Your task to perform on an android device: Open privacy settings Image 0: 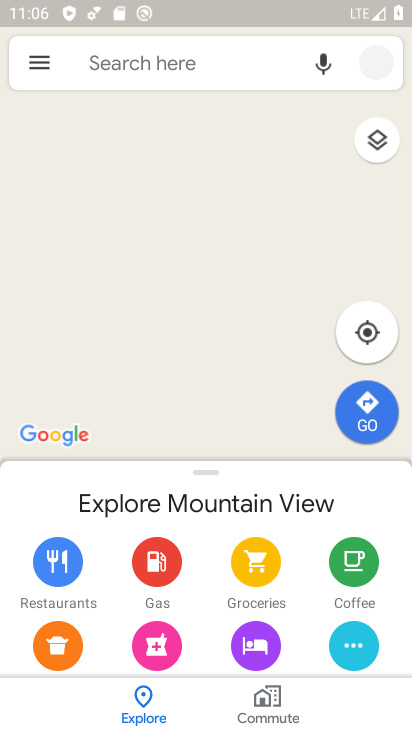
Step 0: click (165, 15)
Your task to perform on an android device: Open privacy settings Image 1: 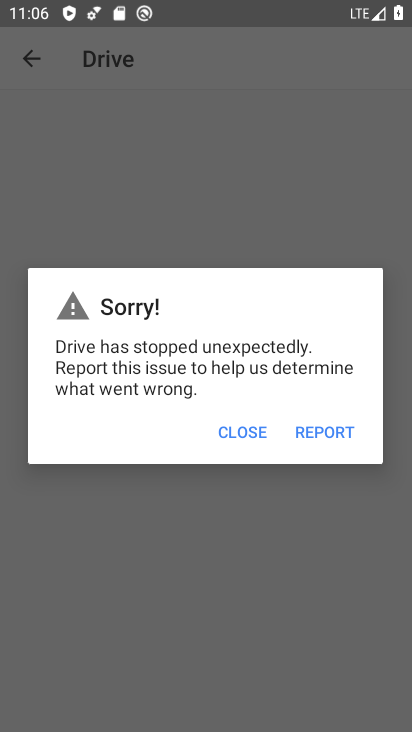
Step 1: press home button
Your task to perform on an android device: Open privacy settings Image 2: 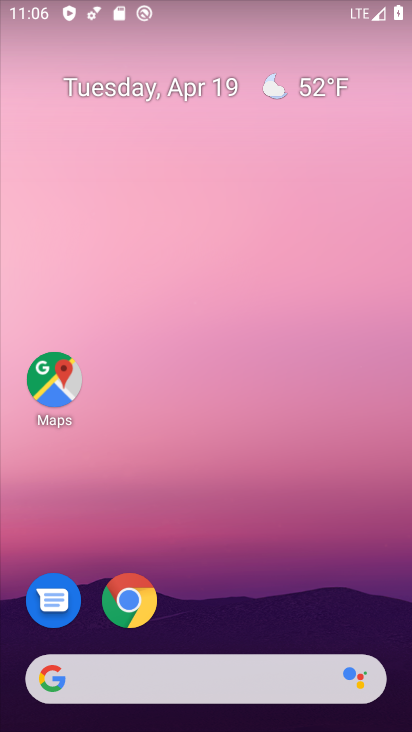
Step 2: drag from (222, 661) to (205, 9)
Your task to perform on an android device: Open privacy settings Image 3: 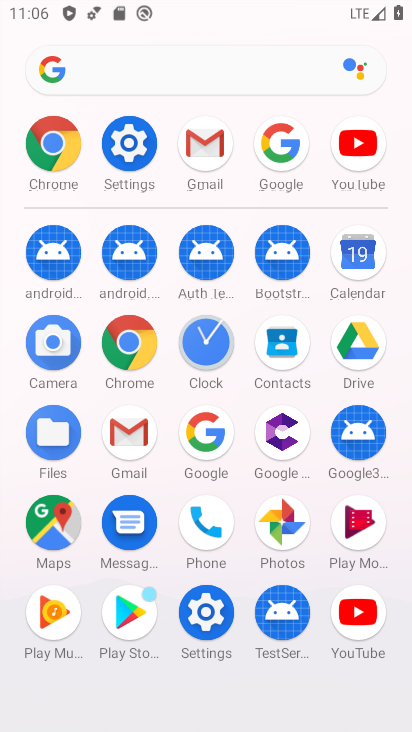
Step 3: click (214, 592)
Your task to perform on an android device: Open privacy settings Image 4: 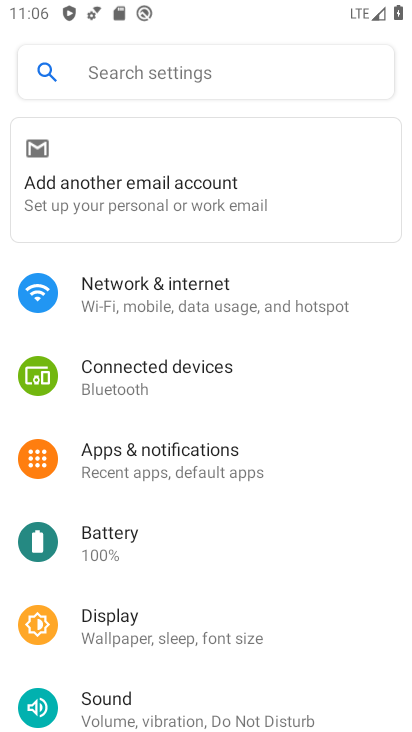
Step 4: drag from (243, 623) to (217, 287)
Your task to perform on an android device: Open privacy settings Image 5: 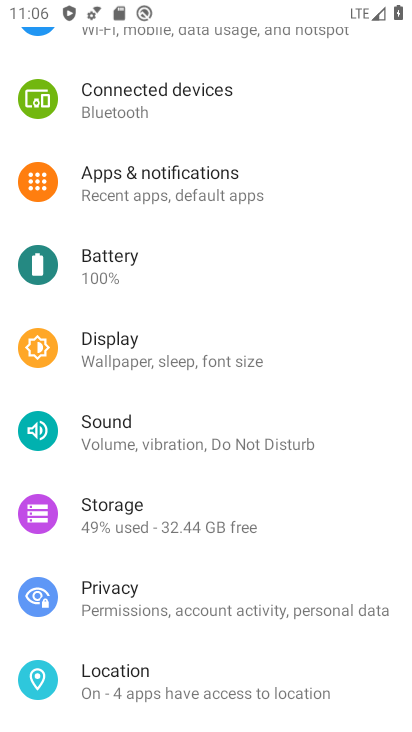
Step 5: click (111, 605)
Your task to perform on an android device: Open privacy settings Image 6: 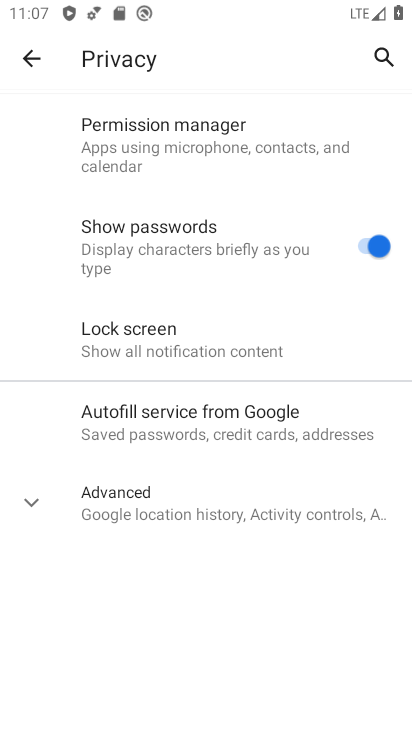
Step 6: task complete